Your task to perform on an android device: turn on the 24-hour format for clock Image 0: 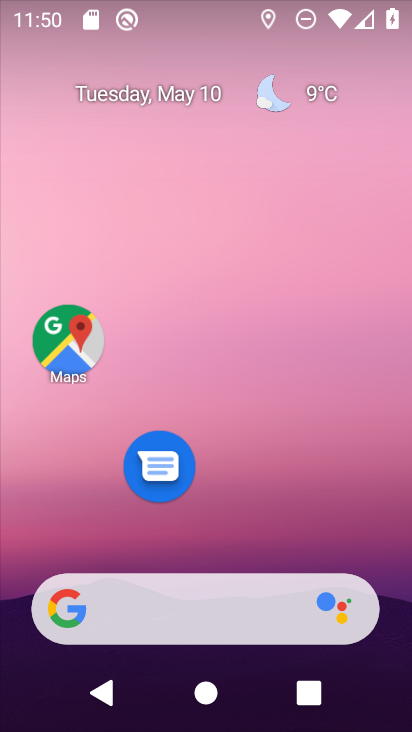
Step 0: drag from (256, 532) to (273, 34)
Your task to perform on an android device: turn on the 24-hour format for clock Image 1: 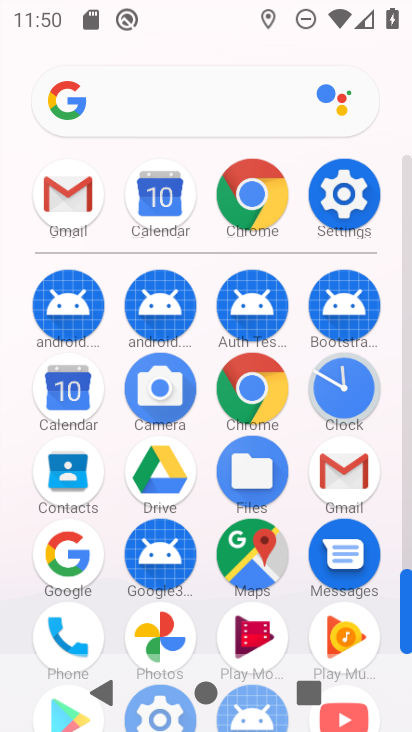
Step 1: click (343, 399)
Your task to perform on an android device: turn on the 24-hour format for clock Image 2: 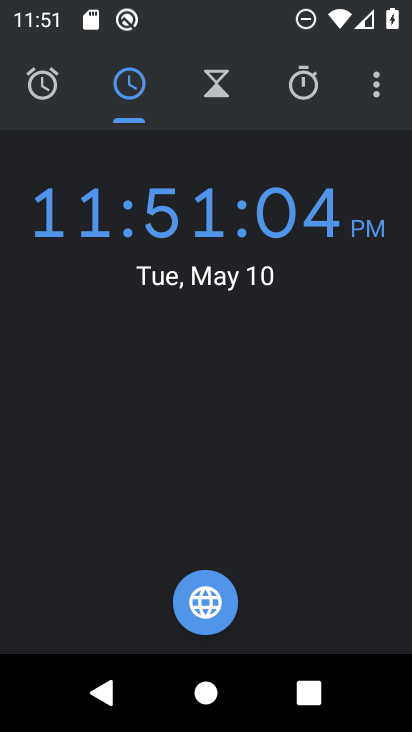
Step 2: click (376, 93)
Your task to perform on an android device: turn on the 24-hour format for clock Image 3: 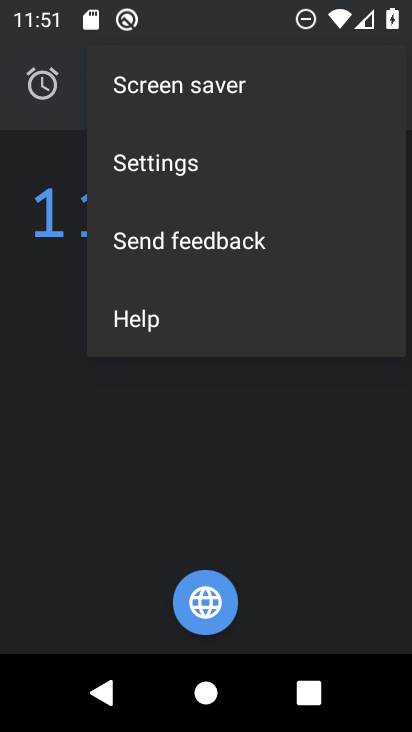
Step 3: click (290, 166)
Your task to perform on an android device: turn on the 24-hour format for clock Image 4: 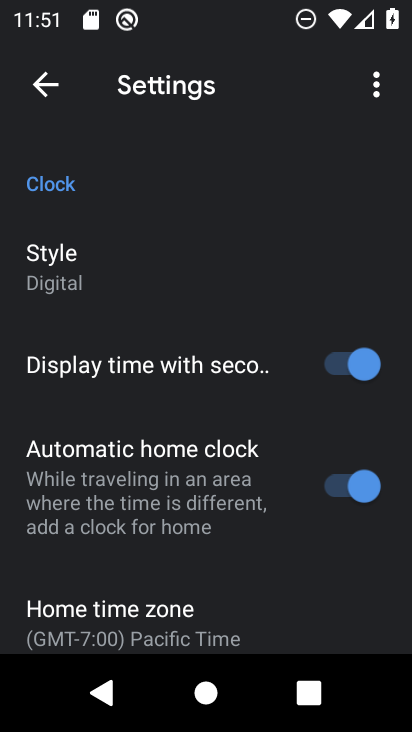
Step 4: drag from (127, 514) to (89, 169)
Your task to perform on an android device: turn on the 24-hour format for clock Image 5: 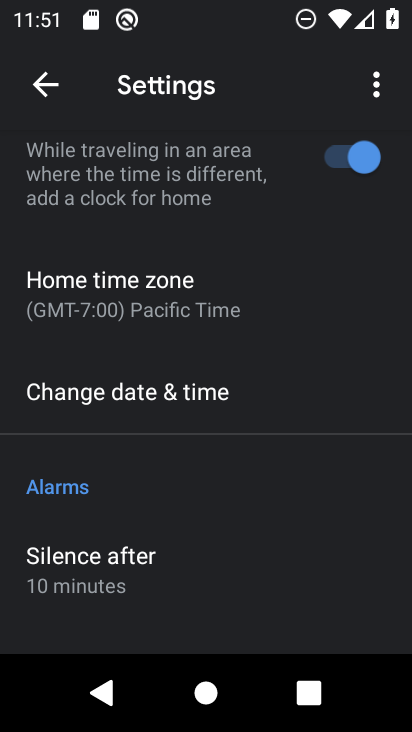
Step 5: drag from (247, 566) to (224, 418)
Your task to perform on an android device: turn on the 24-hour format for clock Image 6: 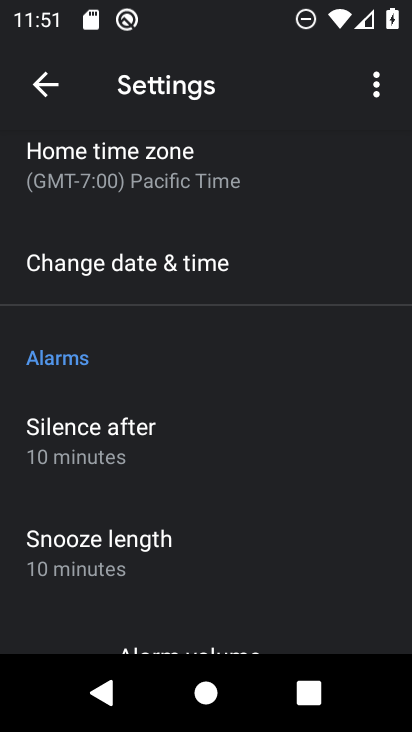
Step 6: click (260, 261)
Your task to perform on an android device: turn on the 24-hour format for clock Image 7: 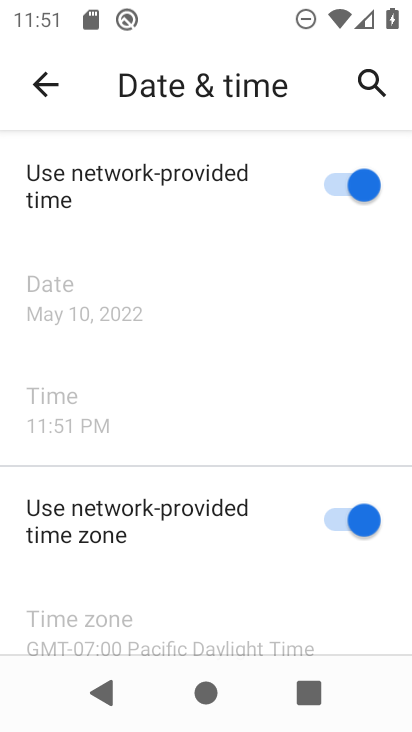
Step 7: drag from (187, 534) to (149, 249)
Your task to perform on an android device: turn on the 24-hour format for clock Image 8: 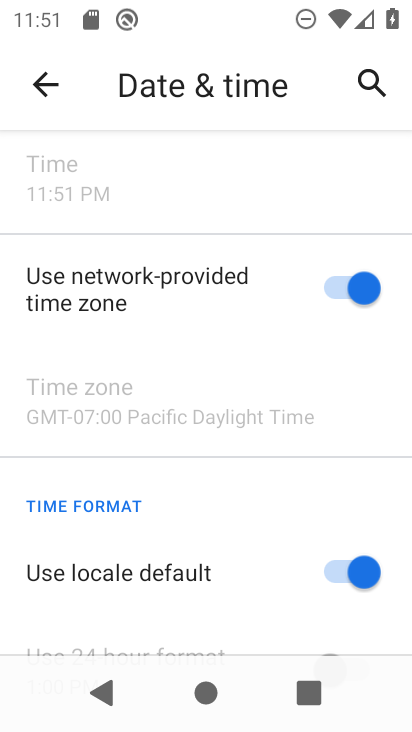
Step 8: drag from (125, 493) to (122, 205)
Your task to perform on an android device: turn on the 24-hour format for clock Image 9: 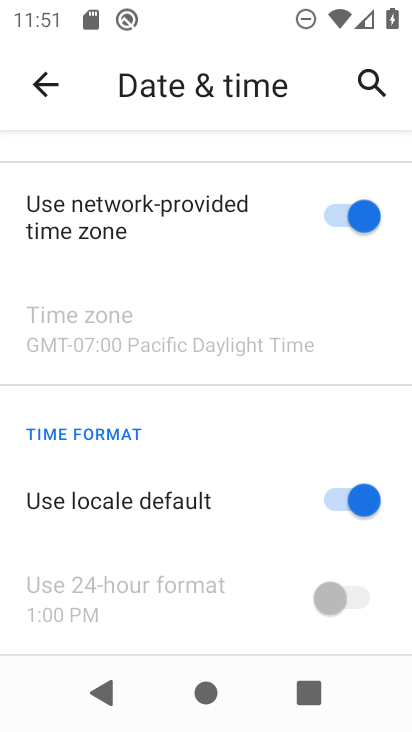
Step 9: click (333, 506)
Your task to perform on an android device: turn on the 24-hour format for clock Image 10: 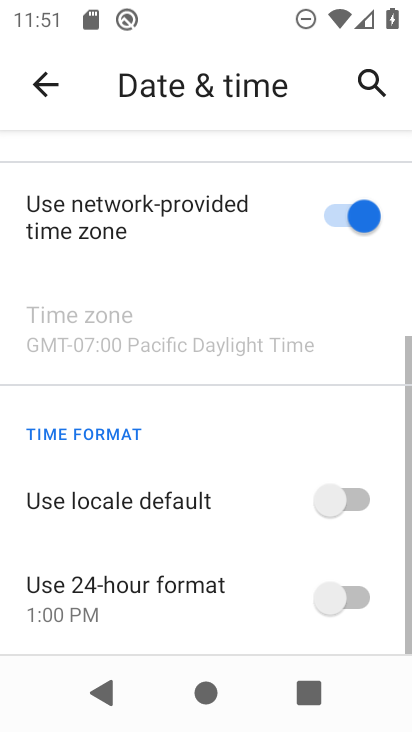
Step 10: click (348, 594)
Your task to perform on an android device: turn on the 24-hour format for clock Image 11: 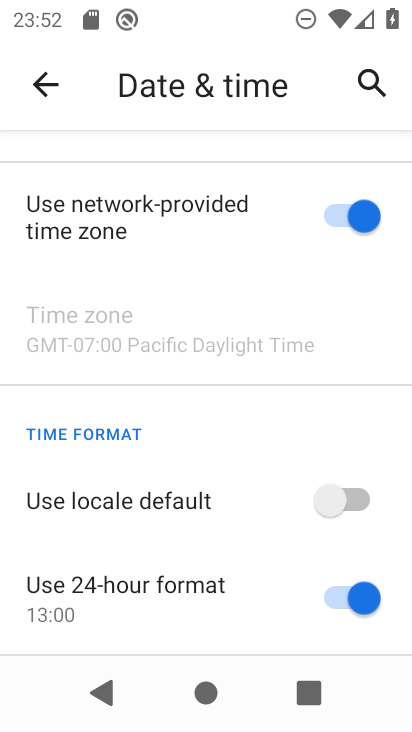
Step 11: task complete